Your task to perform on an android device: see sites visited before in the chrome app Image 0: 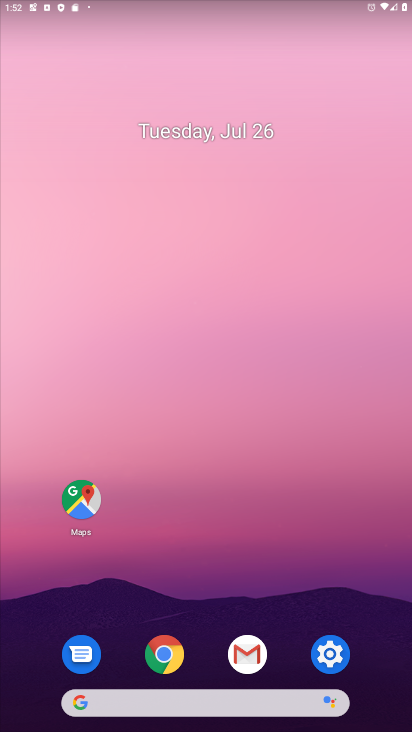
Step 0: click (169, 662)
Your task to perform on an android device: see sites visited before in the chrome app Image 1: 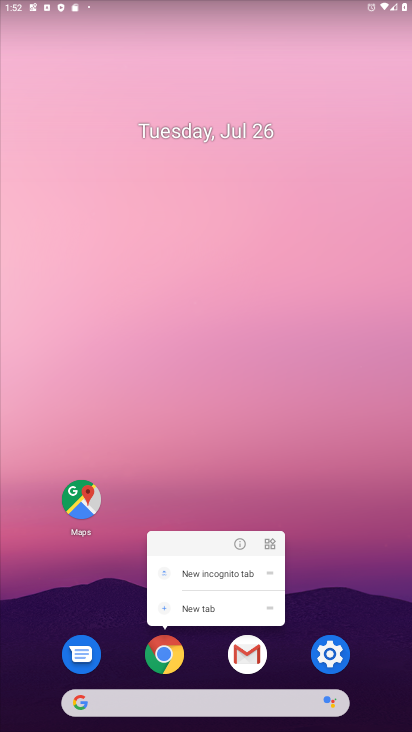
Step 1: click (165, 646)
Your task to perform on an android device: see sites visited before in the chrome app Image 2: 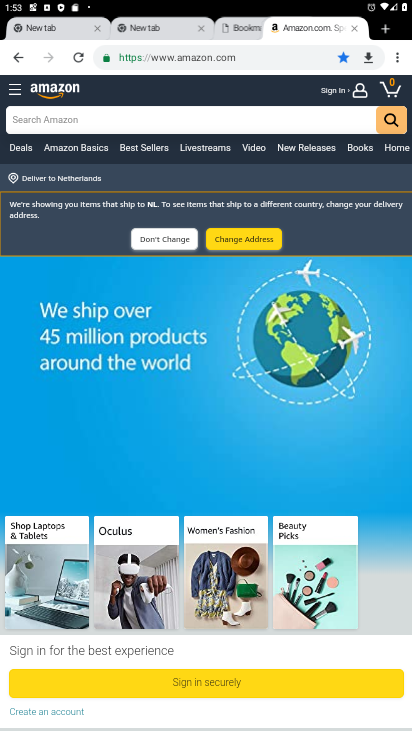
Step 2: click (400, 57)
Your task to perform on an android device: see sites visited before in the chrome app Image 3: 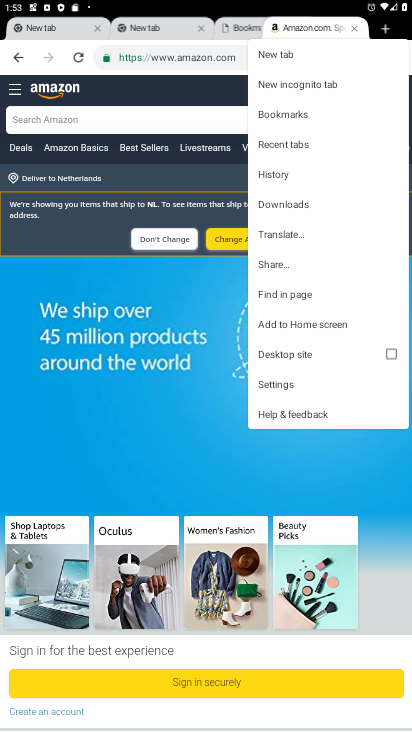
Step 3: click (298, 388)
Your task to perform on an android device: see sites visited before in the chrome app Image 4: 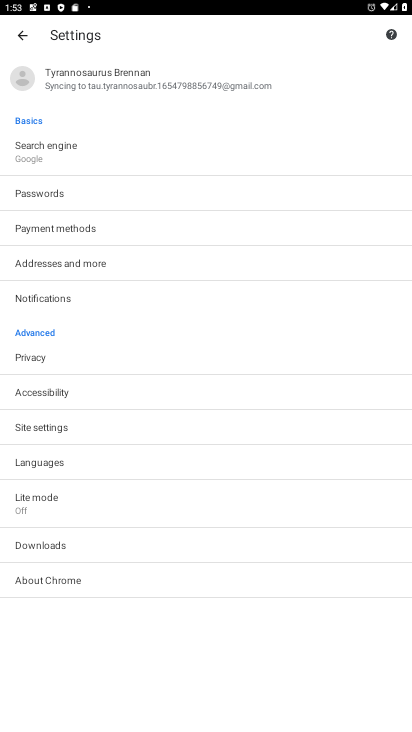
Step 4: click (79, 425)
Your task to perform on an android device: see sites visited before in the chrome app Image 5: 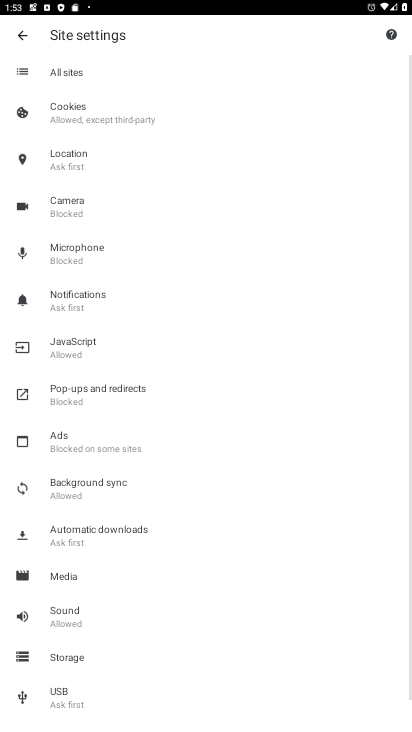
Step 5: click (113, 78)
Your task to perform on an android device: see sites visited before in the chrome app Image 6: 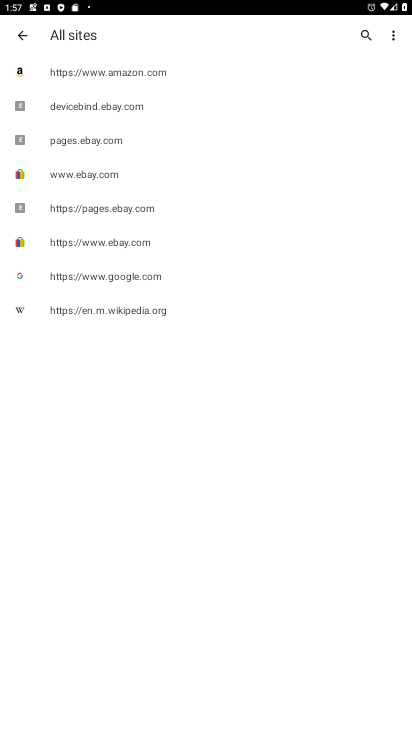
Step 6: task complete